Your task to perform on an android device: snooze an email in the gmail app Image 0: 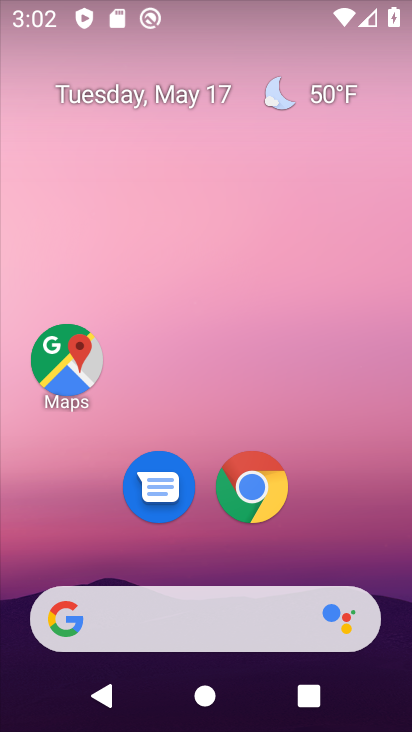
Step 0: drag from (393, 514) to (372, 68)
Your task to perform on an android device: snooze an email in the gmail app Image 1: 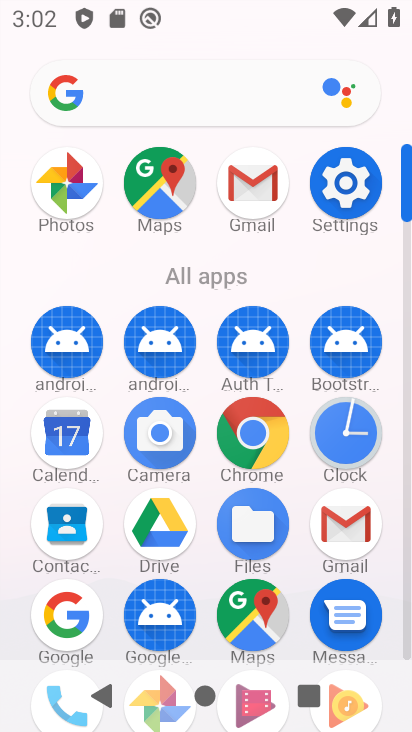
Step 1: click (406, 638)
Your task to perform on an android device: snooze an email in the gmail app Image 2: 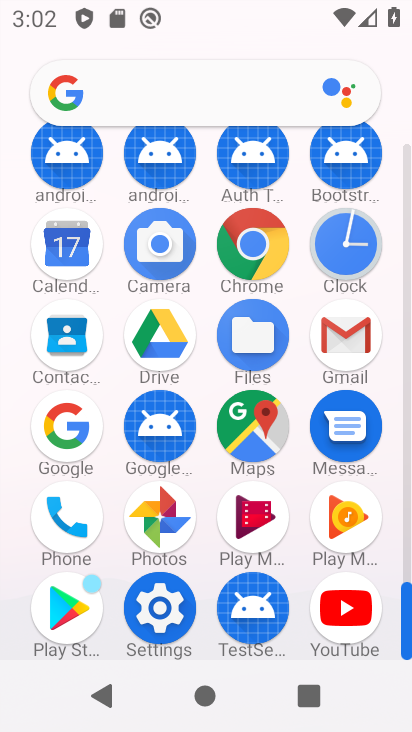
Step 2: click (346, 336)
Your task to perform on an android device: snooze an email in the gmail app Image 3: 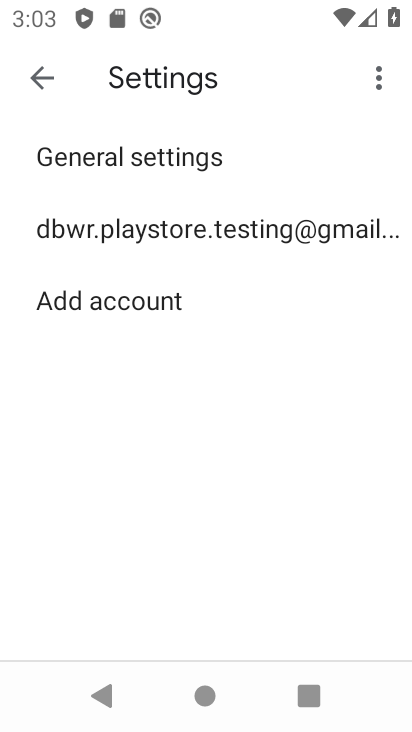
Step 3: press back button
Your task to perform on an android device: snooze an email in the gmail app Image 4: 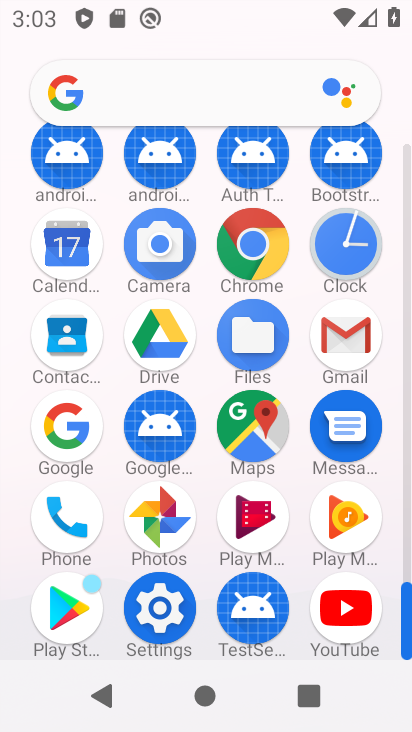
Step 4: click (347, 334)
Your task to perform on an android device: snooze an email in the gmail app Image 5: 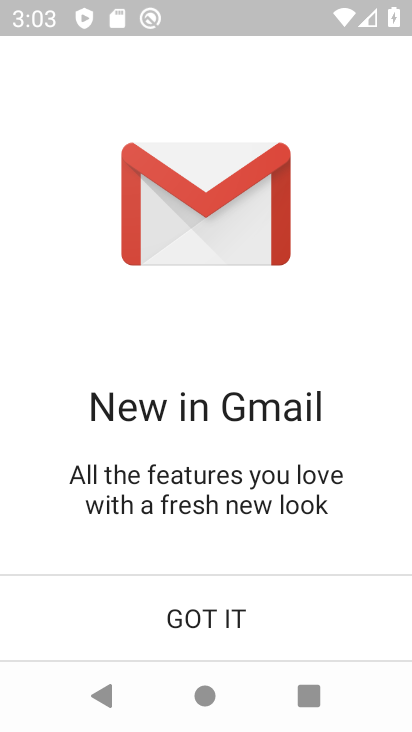
Step 5: click (196, 631)
Your task to perform on an android device: snooze an email in the gmail app Image 6: 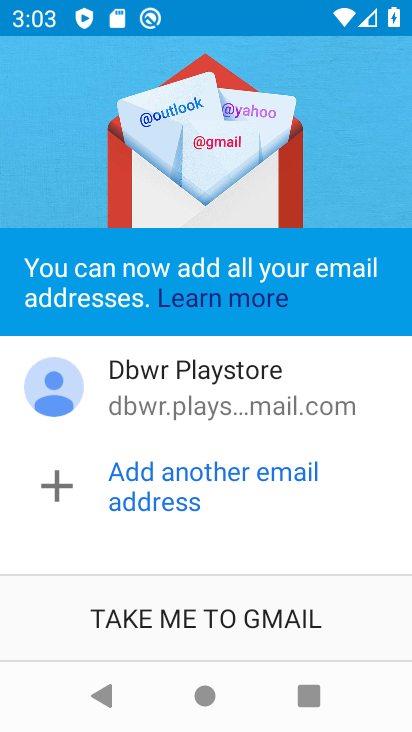
Step 6: click (192, 605)
Your task to perform on an android device: snooze an email in the gmail app Image 7: 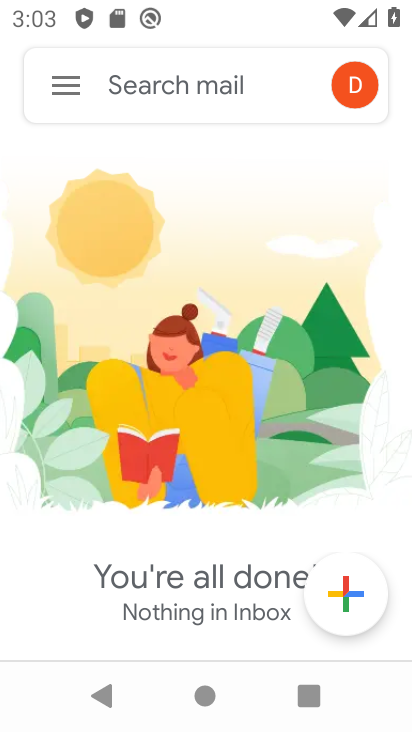
Step 7: click (65, 88)
Your task to perform on an android device: snooze an email in the gmail app Image 8: 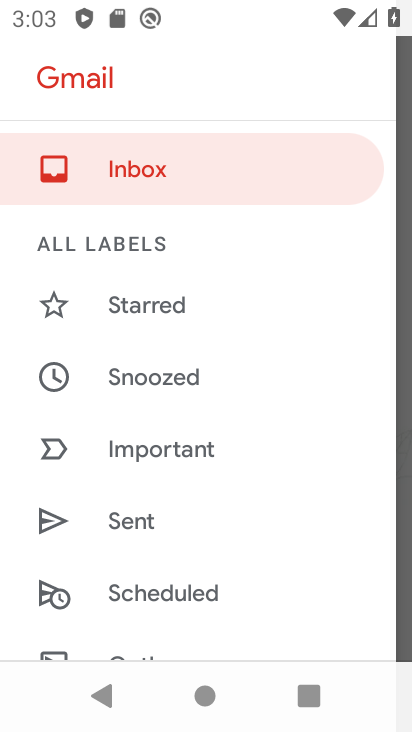
Step 8: drag from (265, 621) to (277, 51)
Your task to perform on an android device: snooze an email in the gmail app Image 9: 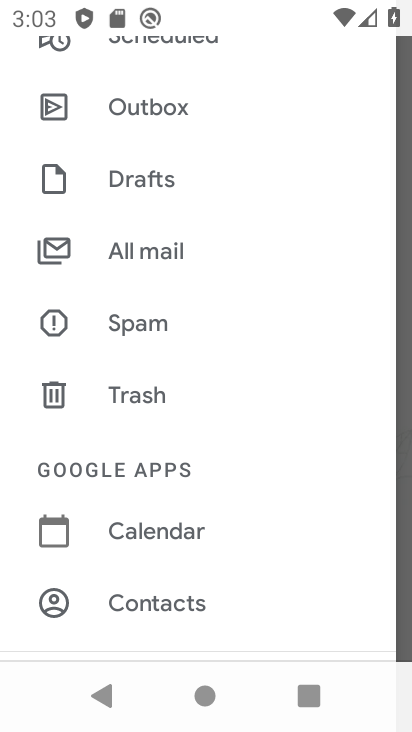
Step 9: drag from (237, 587) to (241, 497)
Your task to perform on an android device: snooze an email in the gmail app Image 10: 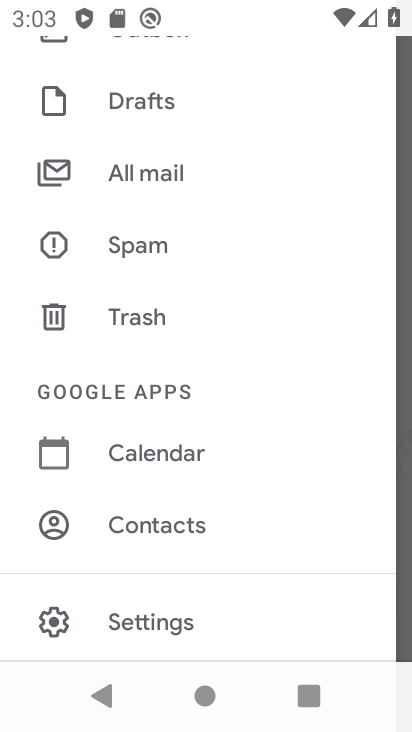
Step 10: click (156, 167)
Your task to perform on an android device: snooze an email in the gmail app Image 11: 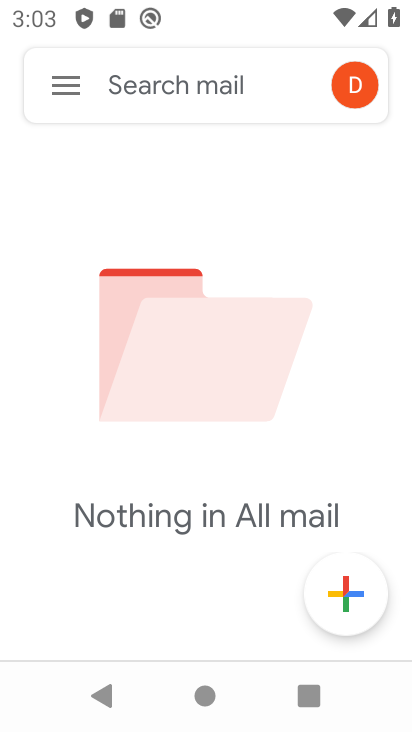
Step 11: task complete